Your task to perform on an android device: add a contact Image 0: 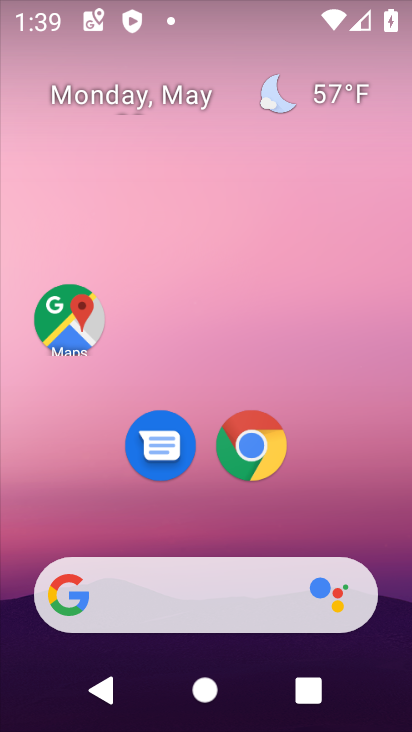
Step 0: drag from (234, 514) to (303, 74)
Your task to perform on an android device: add a contact Image 1: 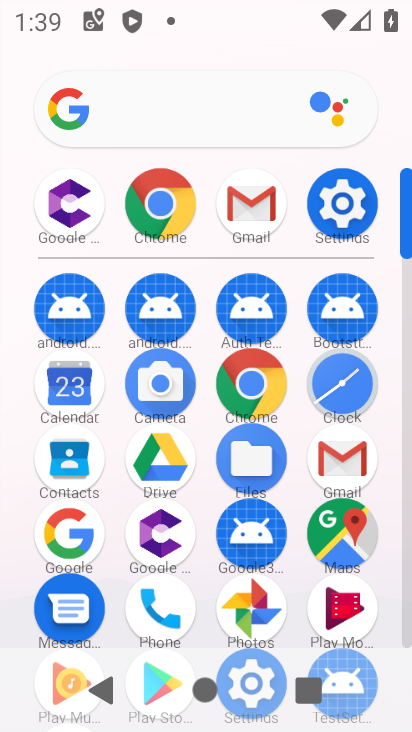
Step 1: click (75, 449)
Your task to perform on an android device: add a contact Image 2: 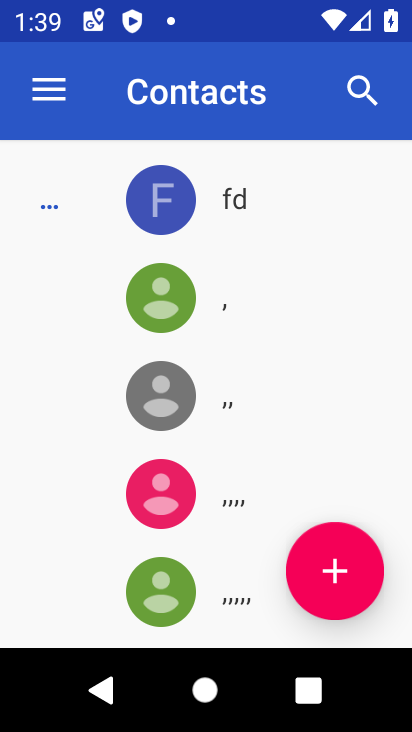
Step 2: click (333, 567)
Your task to perform on an android device: add a contact Image 3: 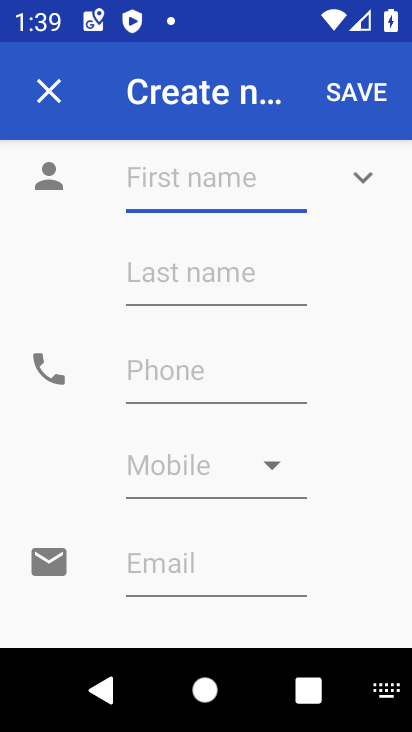
Step 3: type "thd"
Your task to perform on an android device: add a contact Image 4: 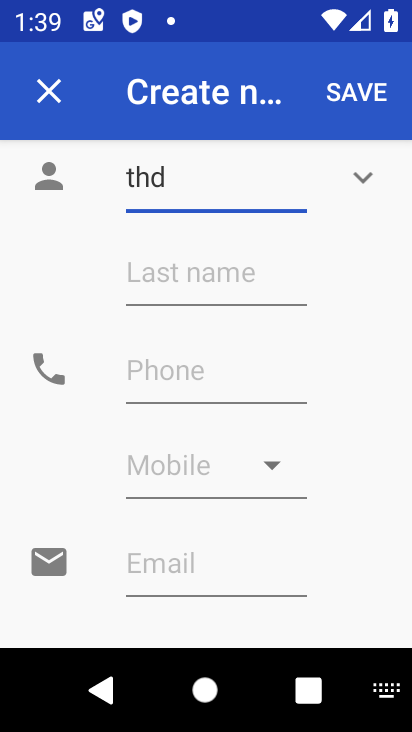
Step 4: click (345, 100)
Your task to perform on an android device: add a contact Image 5: 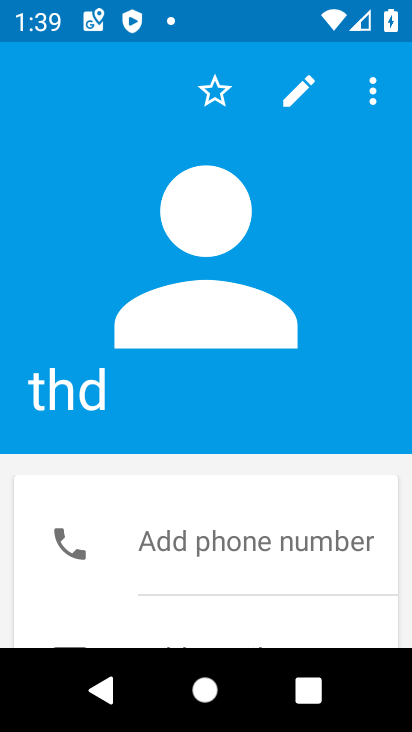
Step 5: task complete